Your task to perform on an android device: Go to settings Image 0: 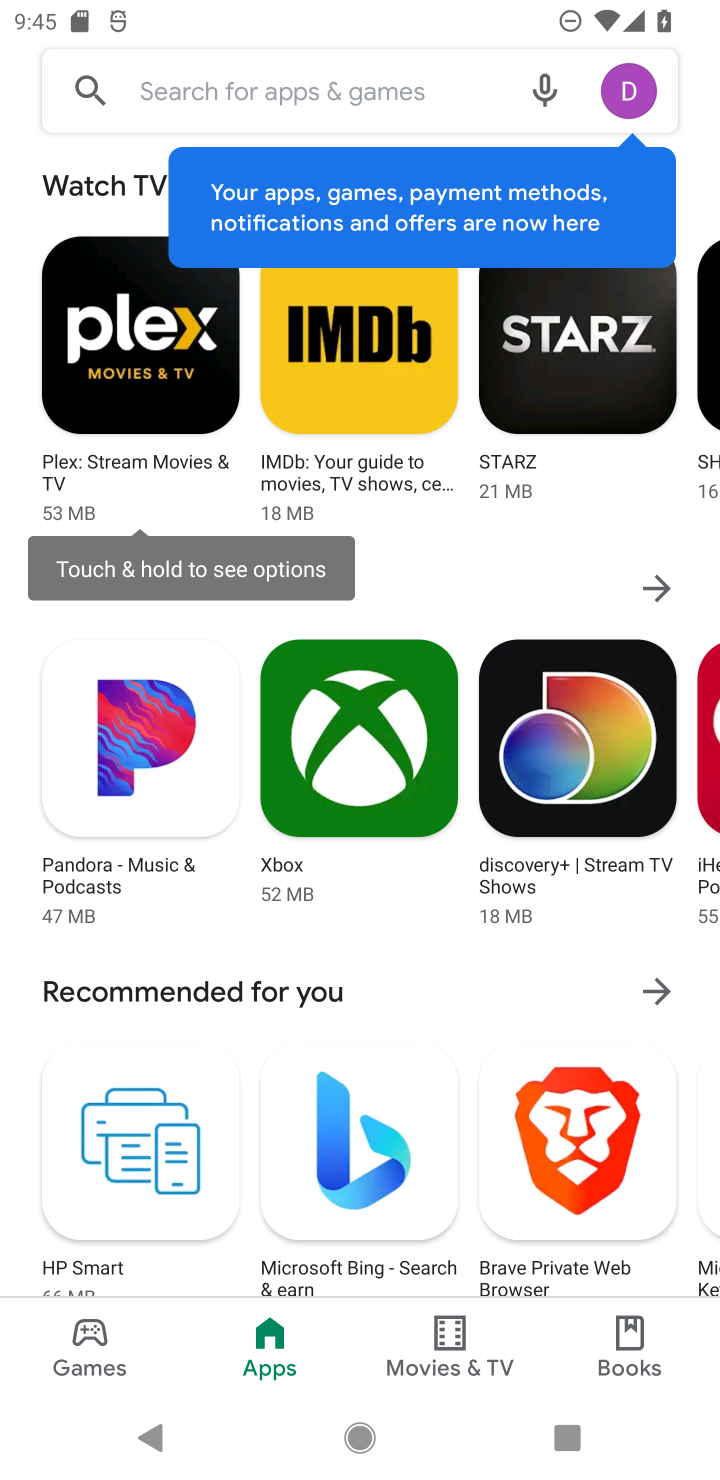
Step 0: press home button
Your task to perform on an android device: Go to settings Image 1: 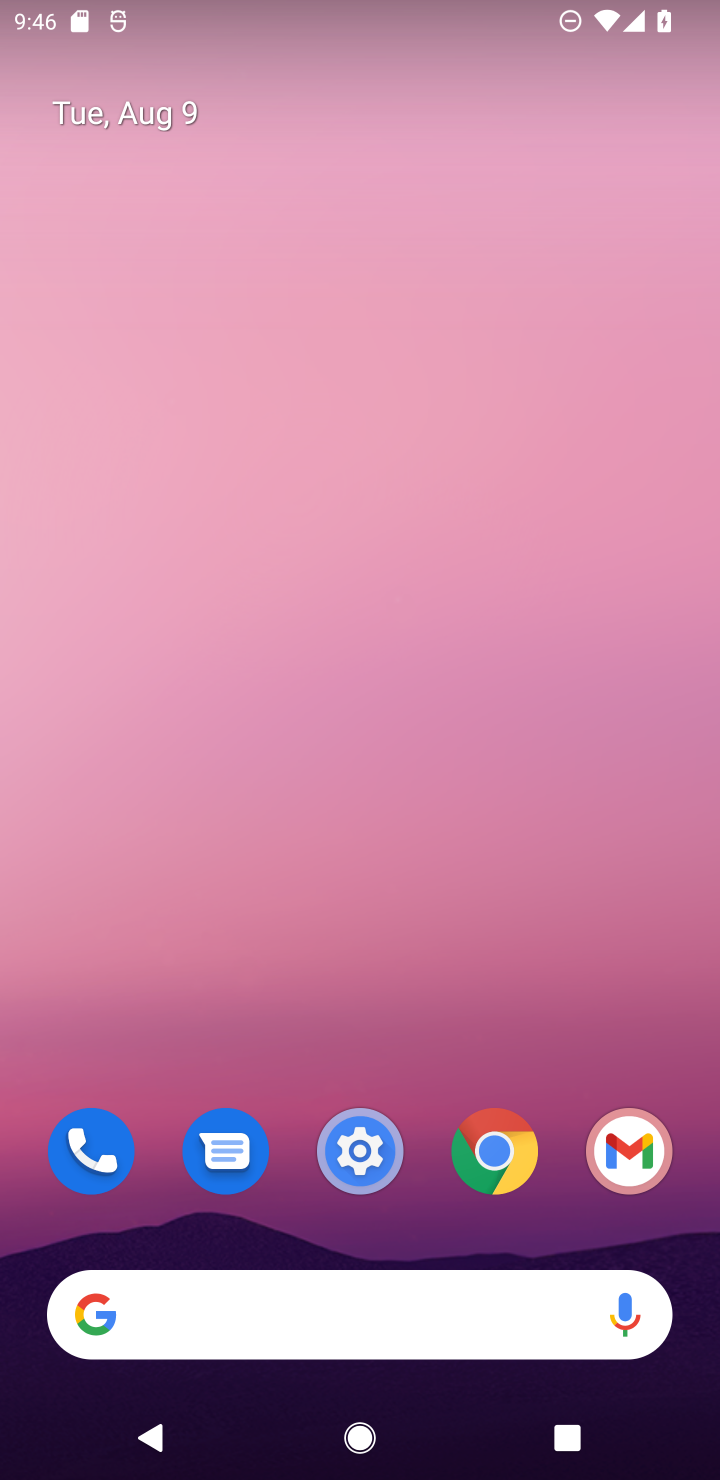
Step 1: click (361, 1150)
Your task to perform on an android device: Go to settings Image 2: 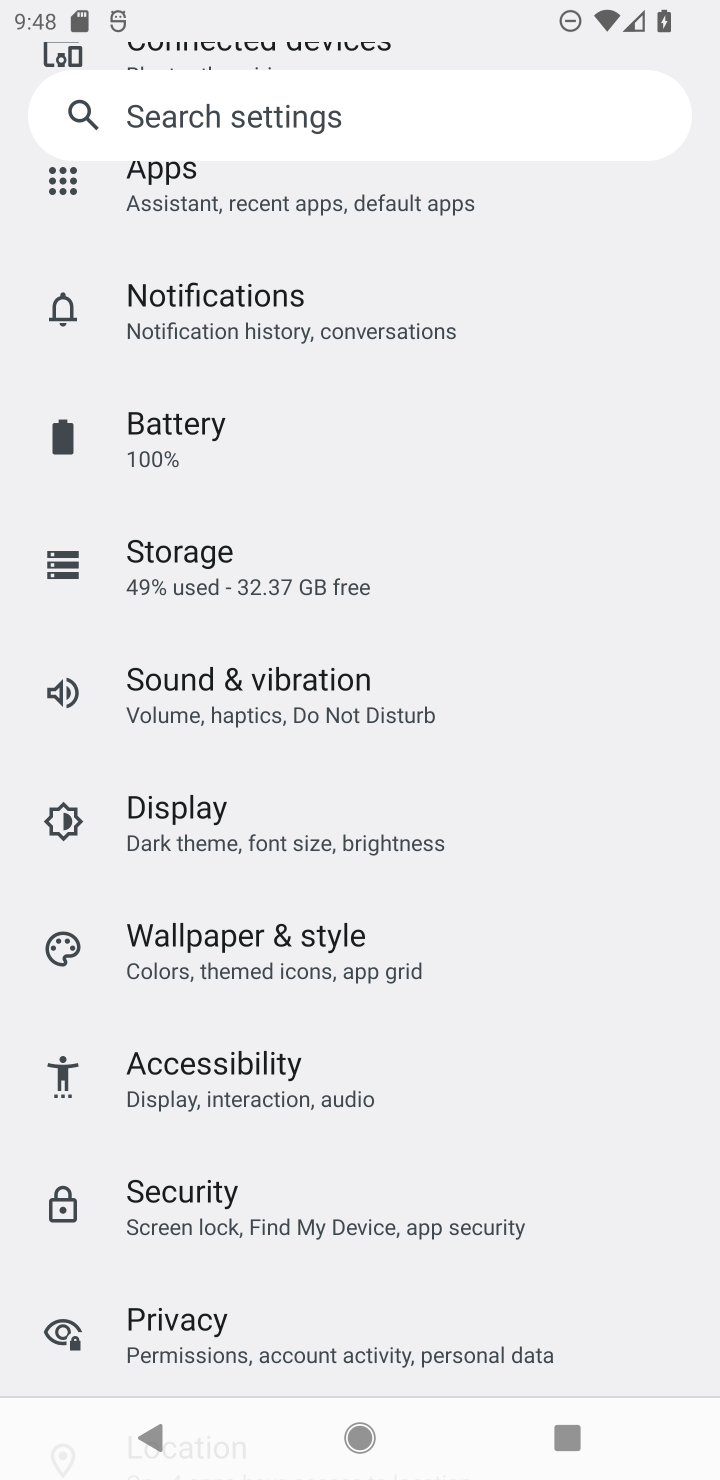
Step 2: task complete